Your task to perform on an android device: Search for seafood restaurants on Google Maps Image 0: 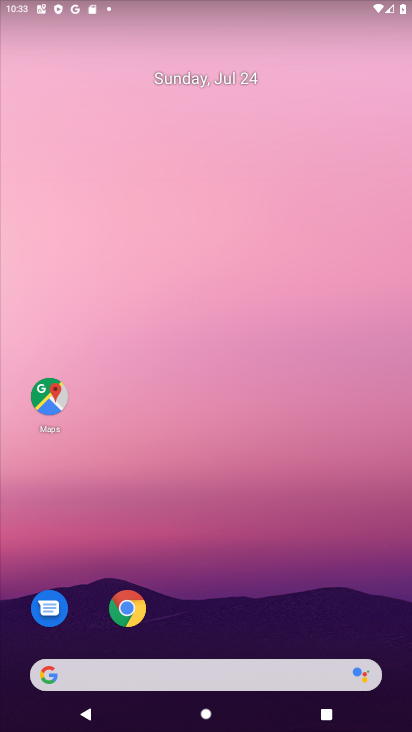
Step 0: click (53, 394)
Your task to perform on an android device: Search for seafood restaurants on Google Maps Image 1: 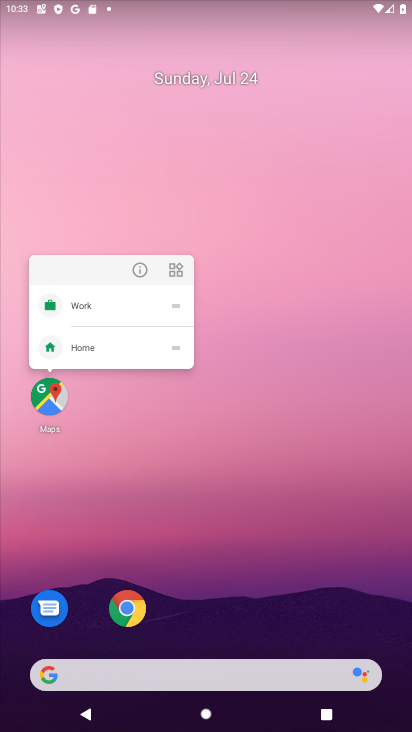
Step 1: click (47, 395)
Your task to perform on an android device: Search for seafood restaurants on Google Maps Image 2: 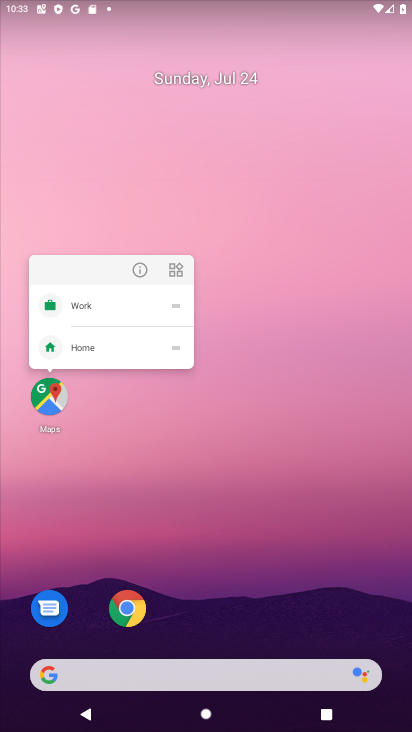
Step 2: click (45, 392)
Your task to perform on an android device: Search for seafood restaurants on Google Maps Image 3: 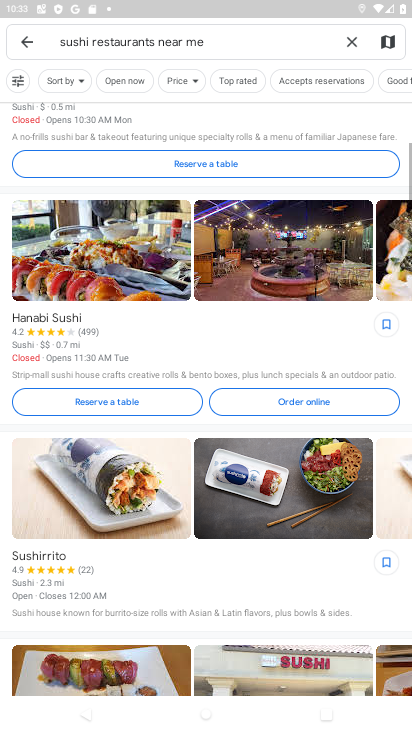
Step 3: click (27, 38)
Your task to perform on an android device: Search for seafood restaurants on Google Maps Image 4: 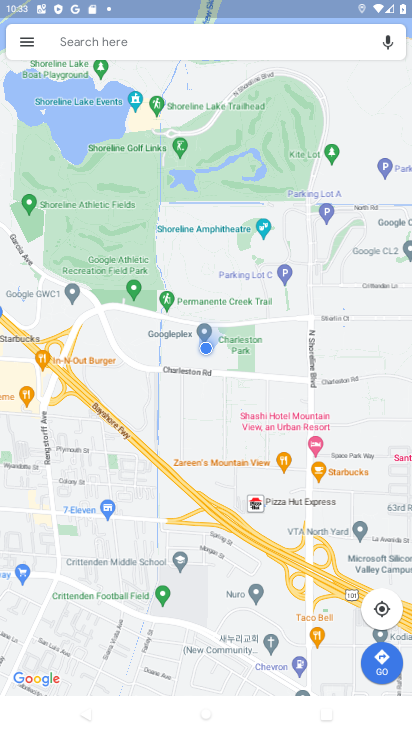
Step 4: click (110, 39)
Your task to perform on an android device: Search for seafood restaurants on Google Maps Image 5: 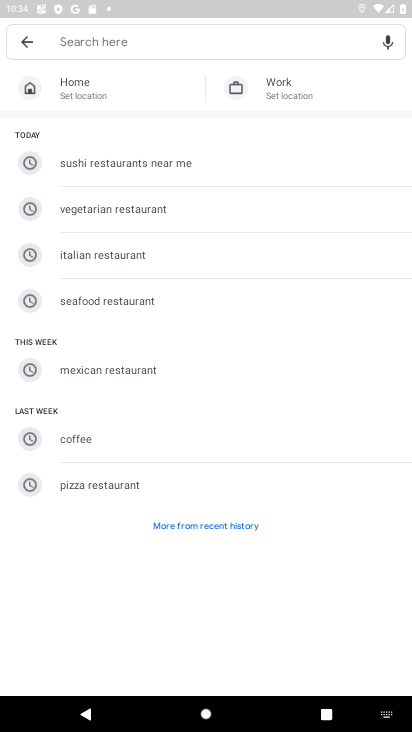
Step 5: click (107, 307)
Your task to perform on an android device: Search for seafood restaurants on Google Maps Image 6: 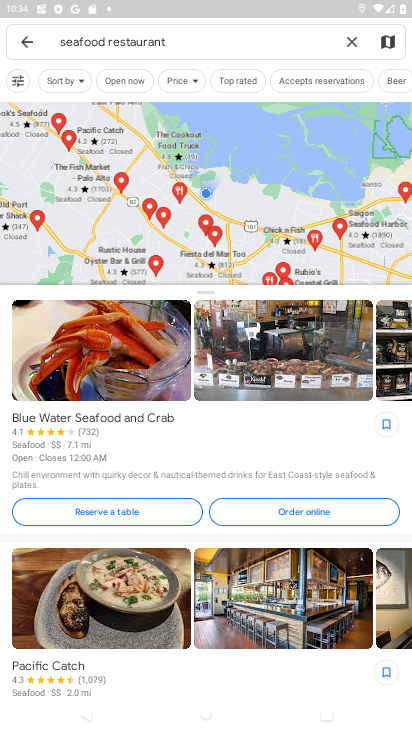
Step 6: task complete